Your task to perform on an android device: Go to wifi settings Image 0: 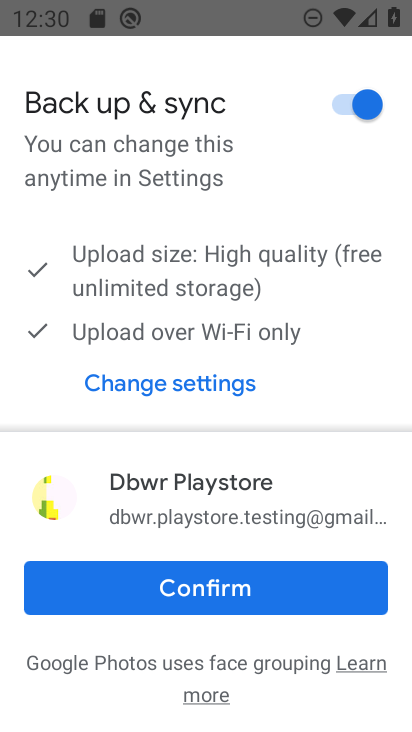
Step 0: press home button
Your task to perform on an android device: Go to wifi settings Image 1: 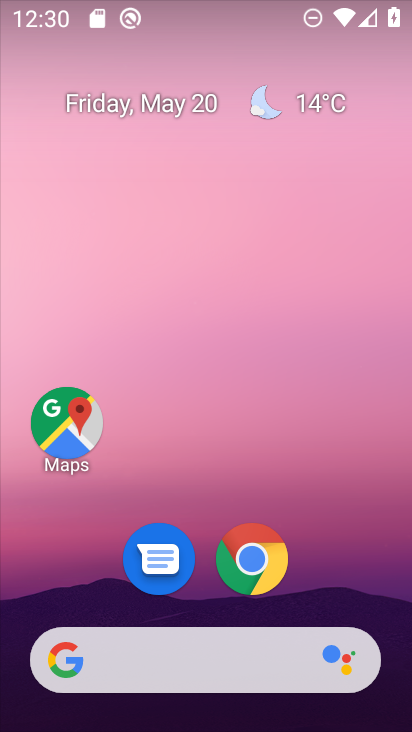
Step 1: drag from (322, 576) to (332, 78)
Your task to perform on an android device: Go to wifi settings Image 2: 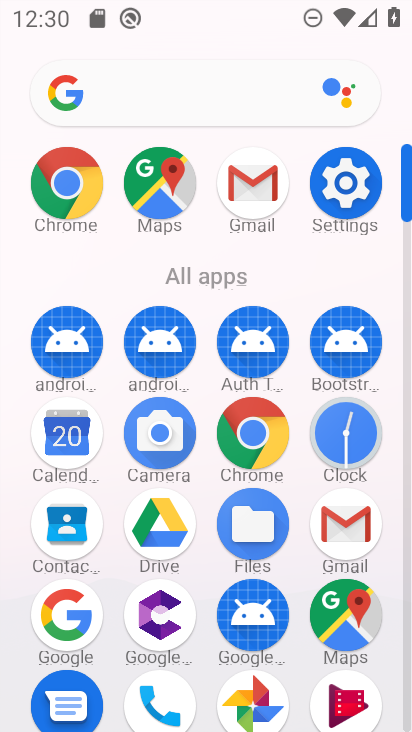
Step 2: click (346, 216)
Your task to perform on an android device: Go to wifi settings Image 3: 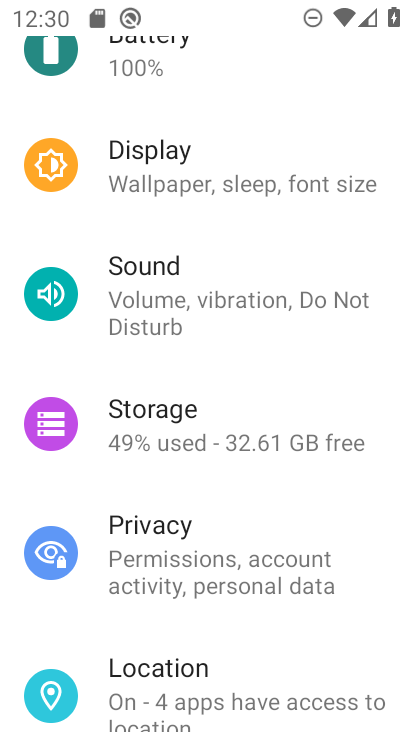
Step 3: drag from (178, 124) to (109, 389)
Your task to perform on an android device: Go to wifi settings Image 4: 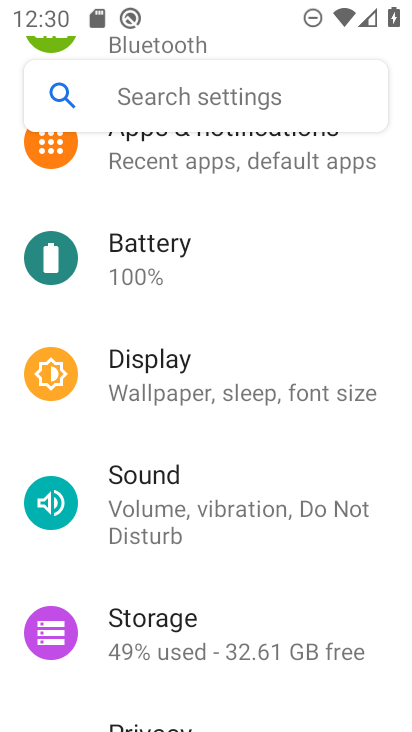
Step 4: drag from (115, 170) to (27, 614)
Your task to perform on an android device: Go to wifi settings Image 5: 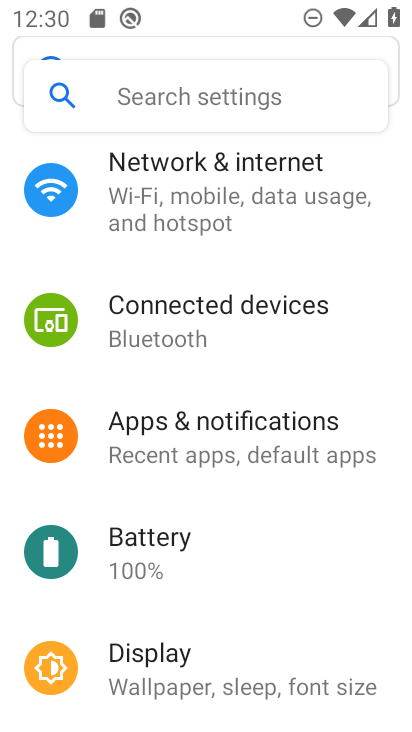
Step 5: click (167, 218)
Your task to perform on an android device: Go to wifi settings Image 6: 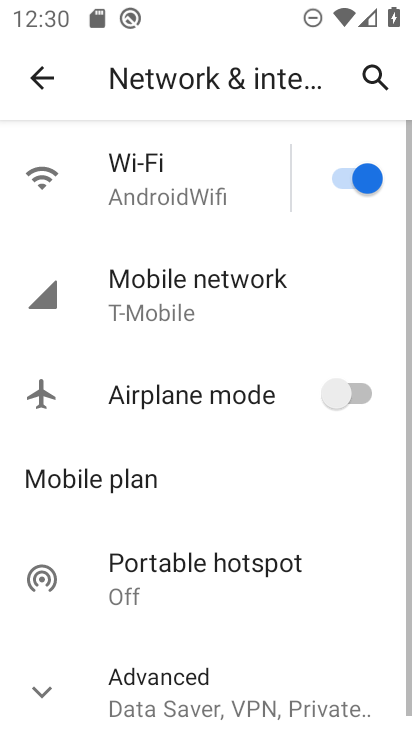
Step 6: click (167, 218)
Your task to perform on an android device: Go to wifi settings Image 7: 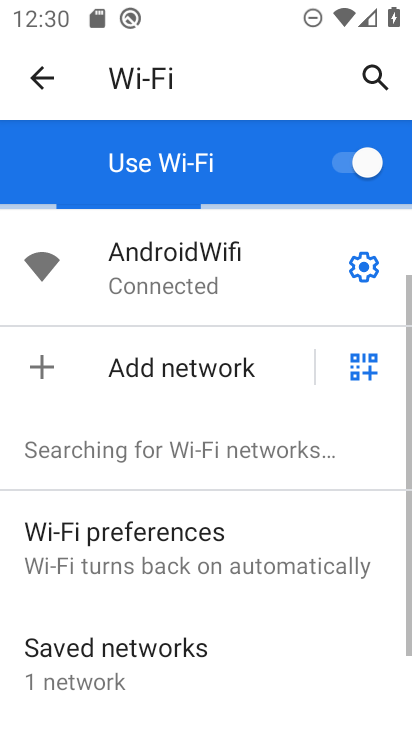
Step 7: task complete